Your task to perform on an android device: turn on the 24-hour format for clock Image 0: 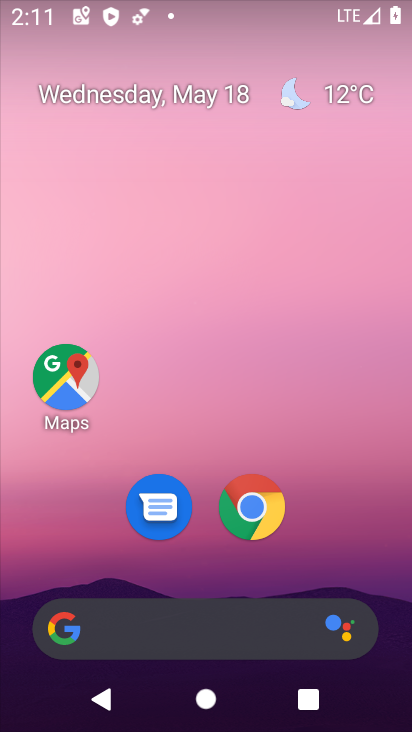
Step 0: click (340, 204)
Your task to perform on an android device: turn on the 24-hour format for clock Image 1: 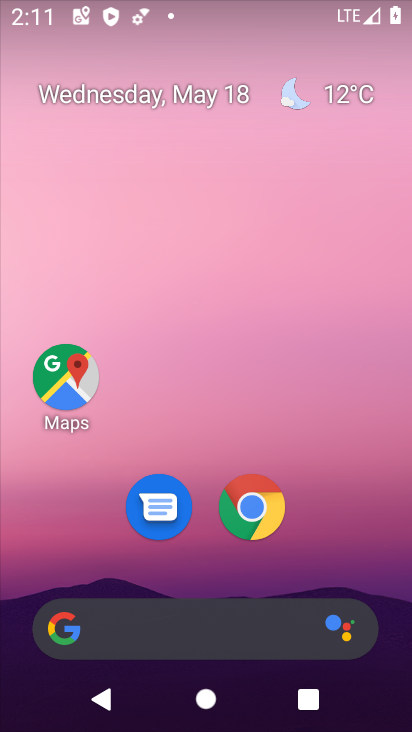
Step 1: drag from (372, 349) to (372, 181)
Your task to perform on an android device: turn on the 24-hour format for clock Image 2: 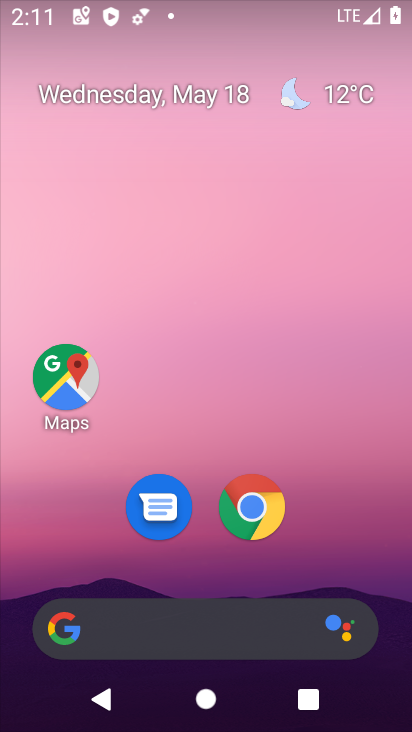
Step 2: drag from (384, 688) to (362, 512)
Your task to perform on an android device: turn on the 24-hour format for clock Image 3: 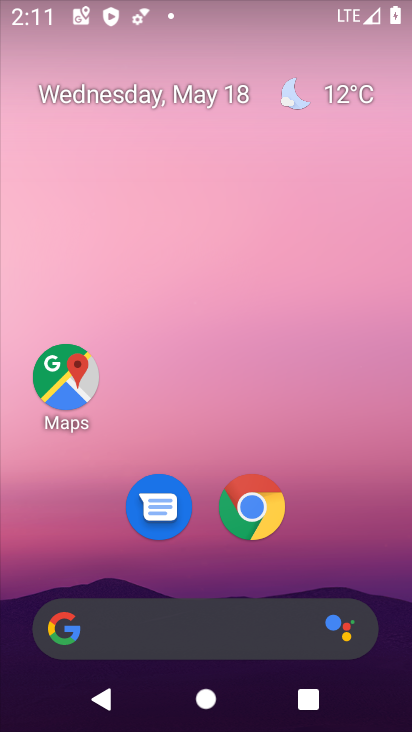
Step 3: drag from (395, 673) to (344, 187)
Your task to perform on an android device: turn on the 24-hour format for clock Image 4: 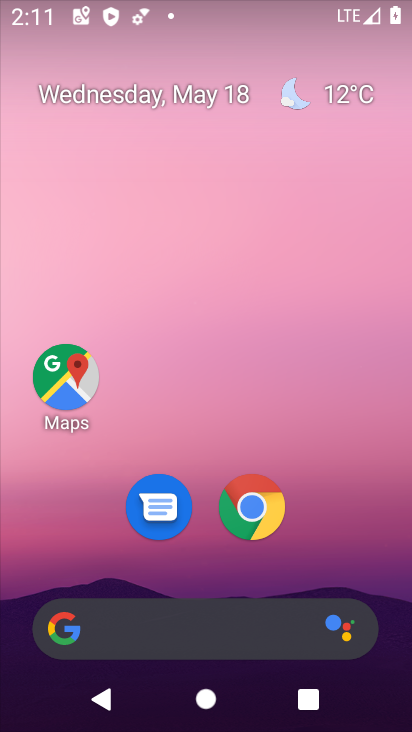
Step 4: drag from (382, 699) to (342, 174)
Your task to perform on an android device: turn on the 24-hour format for clock Image 5: 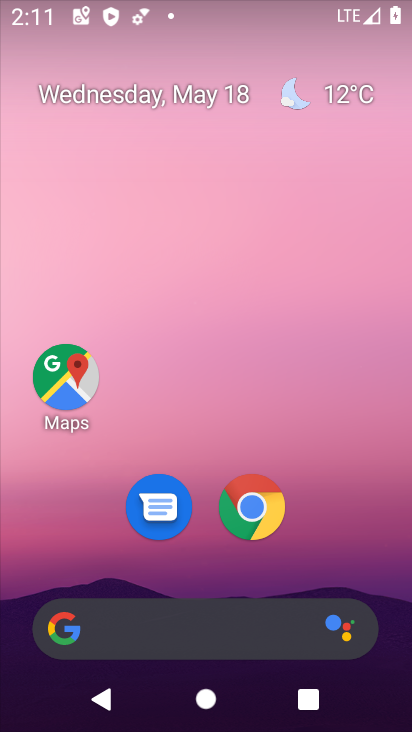
Step 5: drag from (393, 589) to (391, 223)
Your task to perform on an android device: turn on the 24-hour format for clock Image 6: 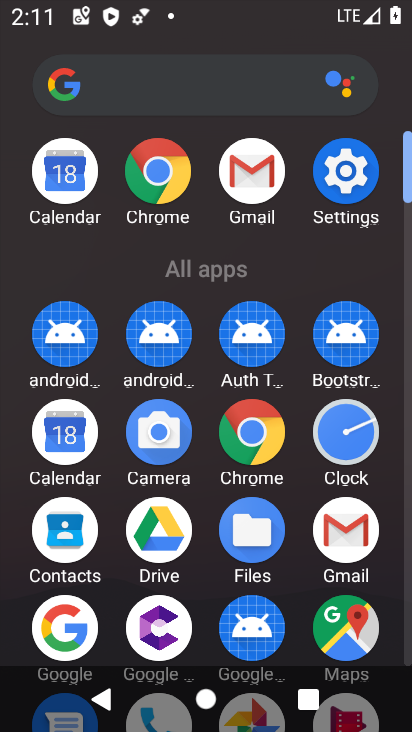
Step 6: click (331, 446)
Your task to perform on an android device: turn on the 24-hour format for clock Image 7: 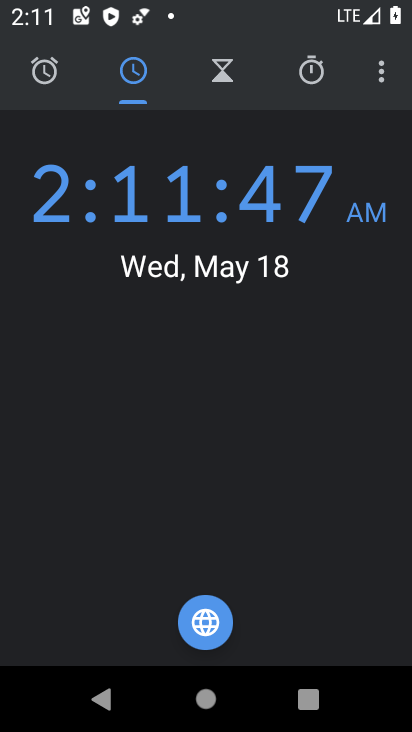
Step 7: click (380, 76)
Your task to perform on an android device: turn on the 24-hour format for clock Image 8: 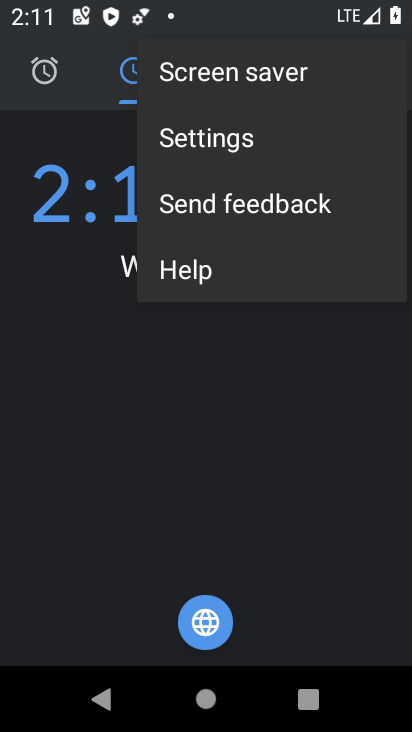
Step 8: click (211, 138)
Your task to perform on an android device: turn on the 24-hour format for clock Image 9: 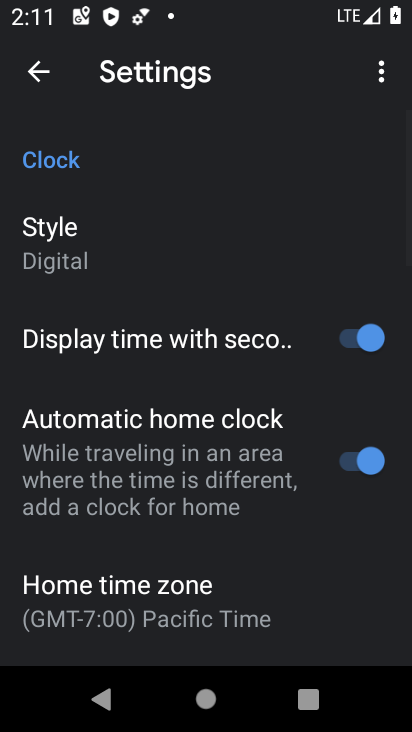
Step 9: drag from (323, 594) to (279, 288)
Your task to perform on an android device: turn on the 24-hour format for clock Image 10: 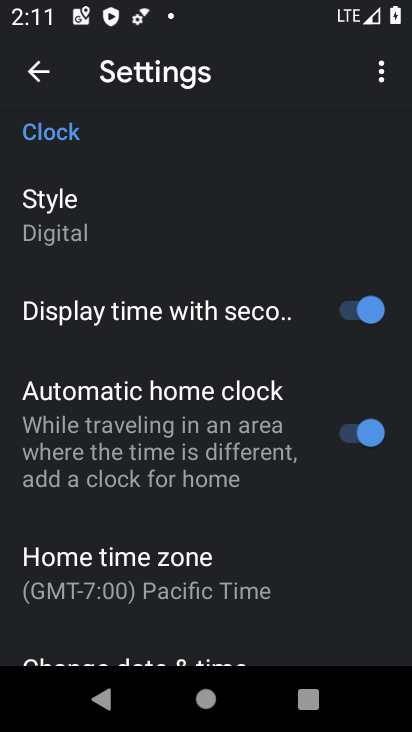
Step 10: drag from (308, 576) to (226, 272)
Your task to perform on an android device: turn on the 24-hour format for clock Image 11: 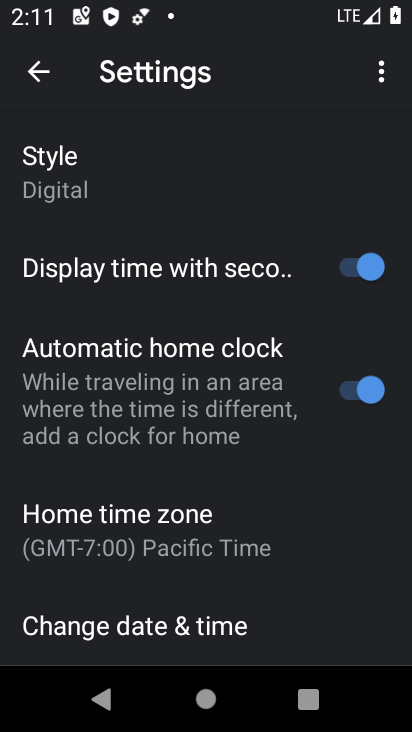
Step 11: click (138, 628)
Your task to perform on an android device: turn on the 24-hour format for clock Image 12: 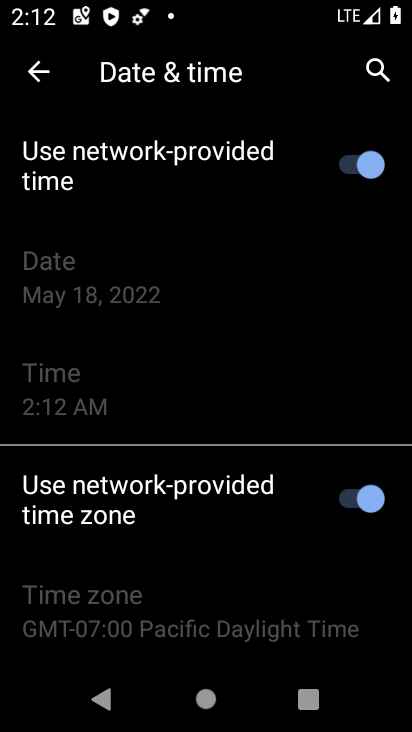
Step 12: drag from (257, 527) to (274, 199)
Your task to perform on an android device: turn on the 24-hour format for clock Image 13: 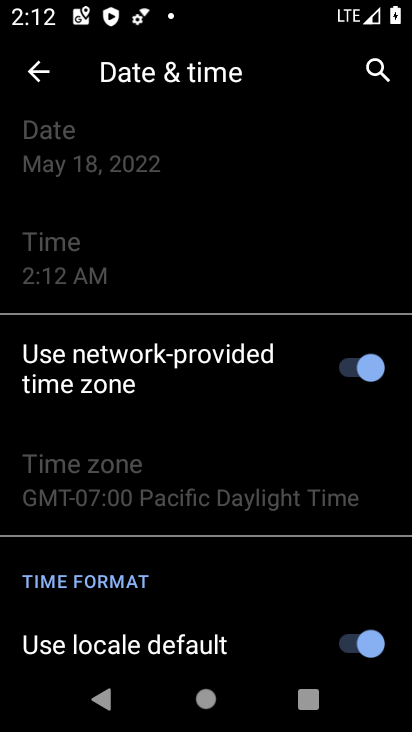
Step 13: drag from (255, 623) to (265, 333)
Your task to perform on an android device: turn on the 24-hour format for clock Image 14: 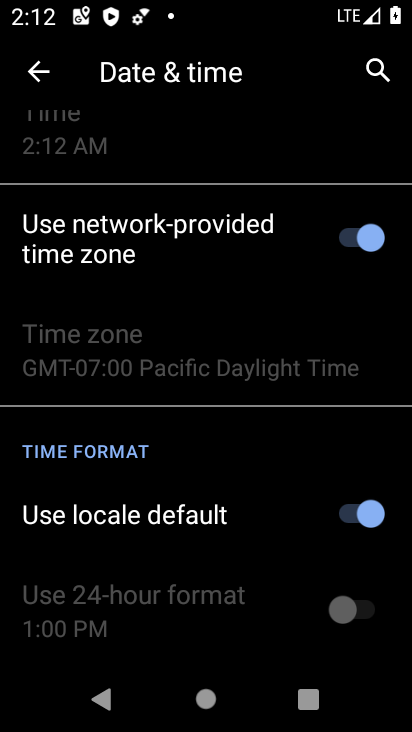
Step 14: click (350, 515)
Your task to perform on an android device: turn on the 24-hour format for clock Image 15: 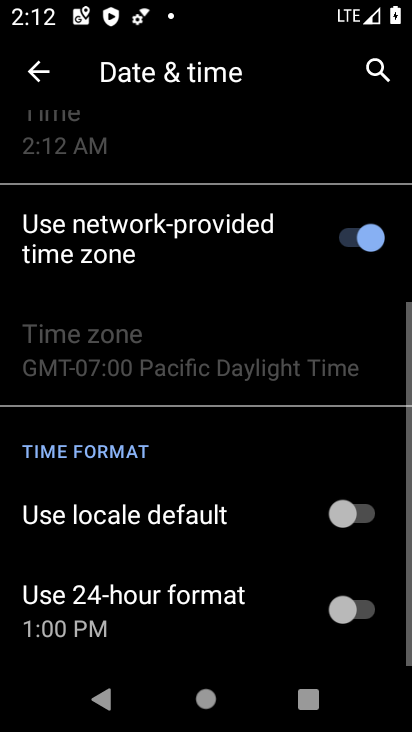
Step 15: click (363, 613)
Your task to perform on an android device: turn on the 24-hour format for clock Image 16: 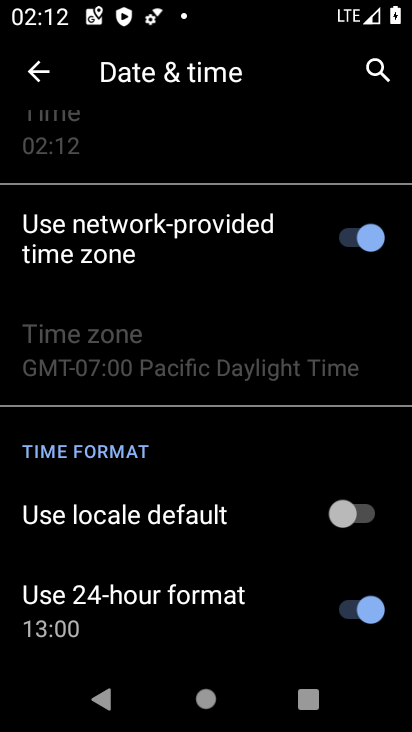
Step 16: task complete